Your task to perform on an android device: What's on my calendar tomorrow? Image 0: 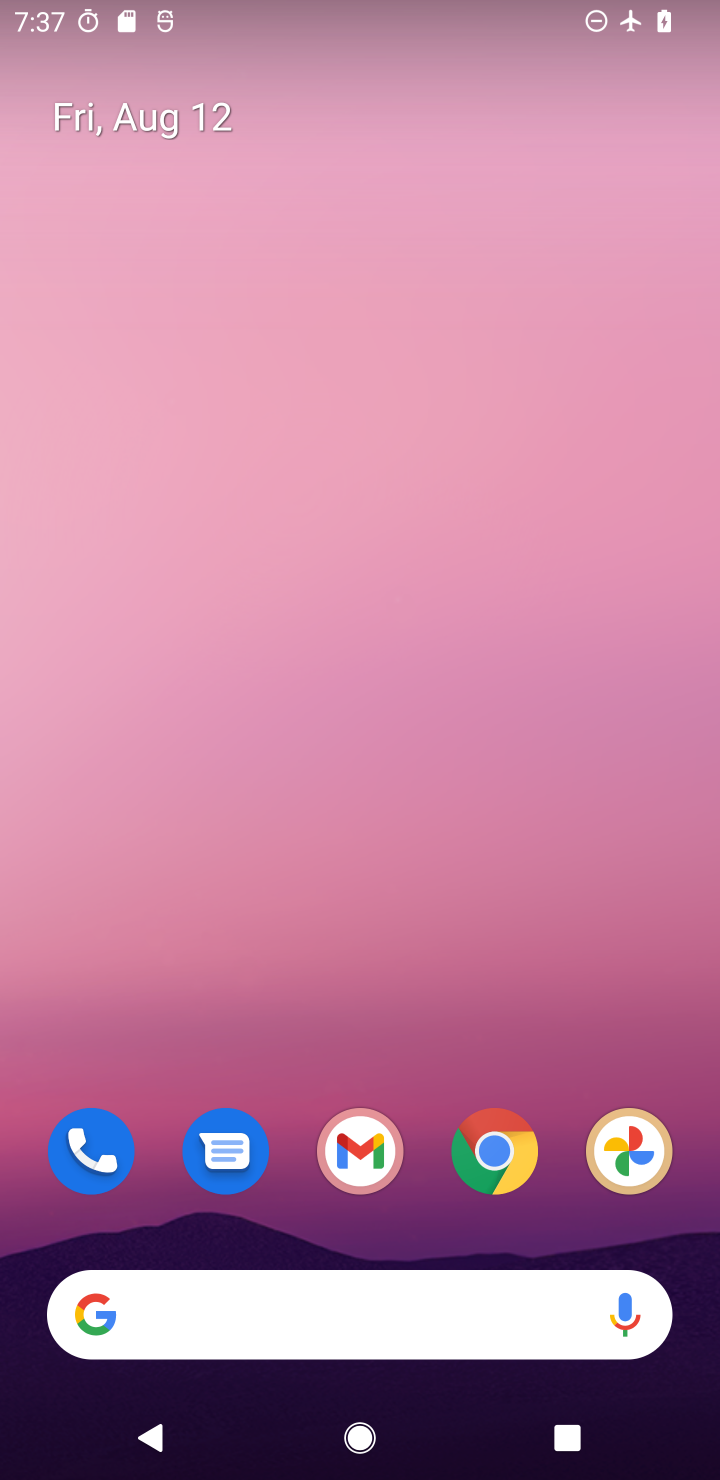
Step 0: drag from (459, 1015) to (152, 11)
Your task to perform on an android device: What's on my calendar tomorrow? Image 1: 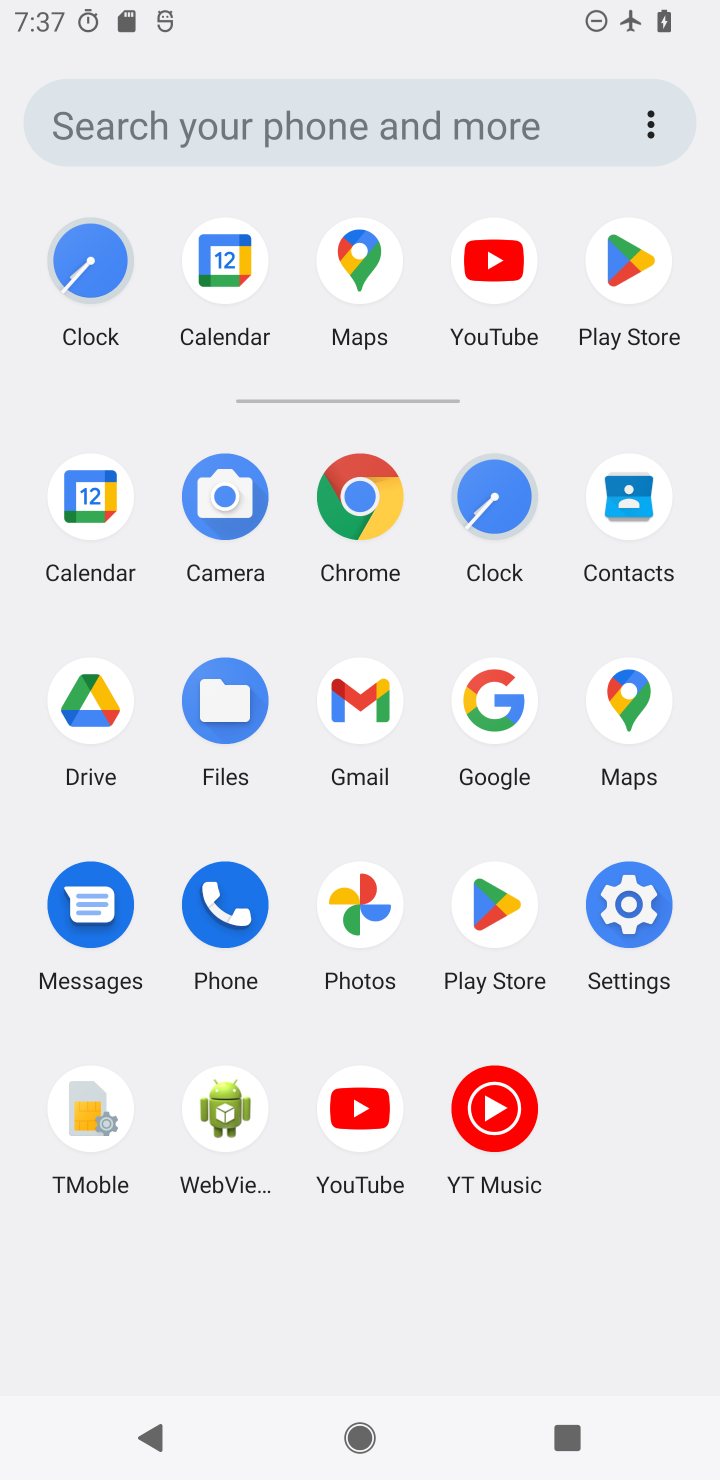
Step 1: click (93, 506)
Your task to perform on an android device: What's on my calendar tomorrow? Image 2: 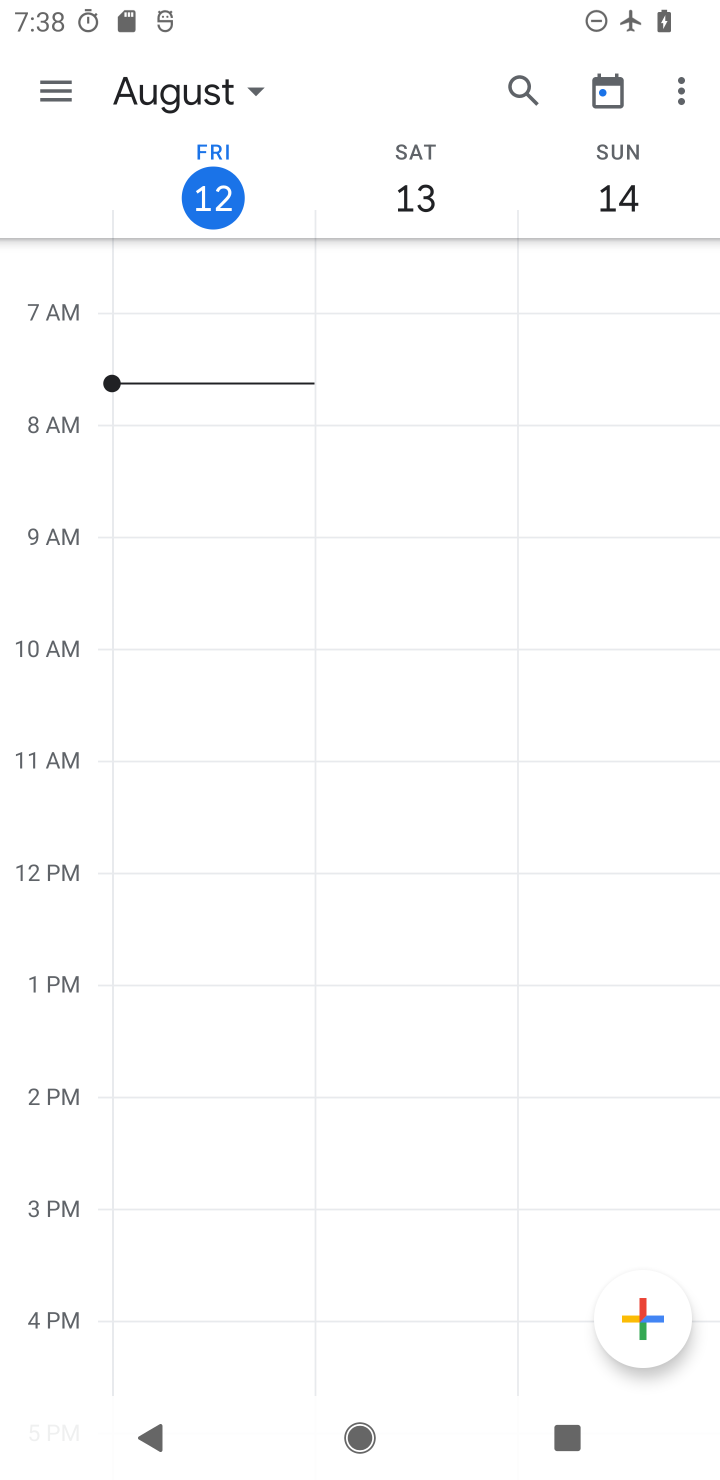
Step 2: click (414, 181)
Your task to perform on an android device: What's on my calendar tomorrow? Image 3: 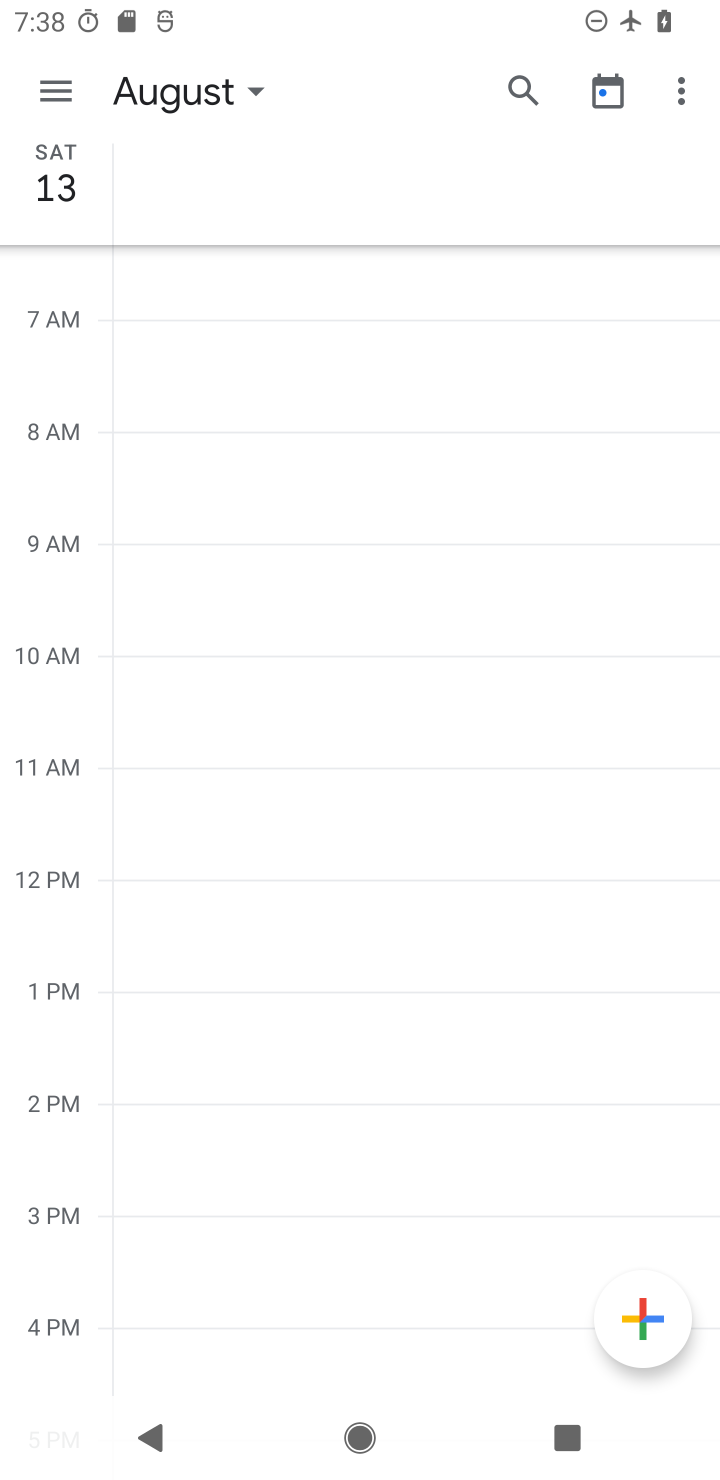
Step 3: task complete